Your task to perform on an android device: Open Chrome and go to settings Image 0: 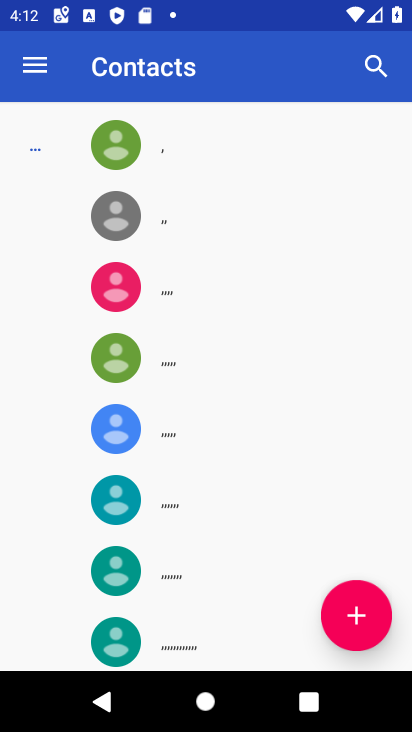
Step 0: press home button
Your task to perform on an android device: Open Chrome and go to settings Image 1: 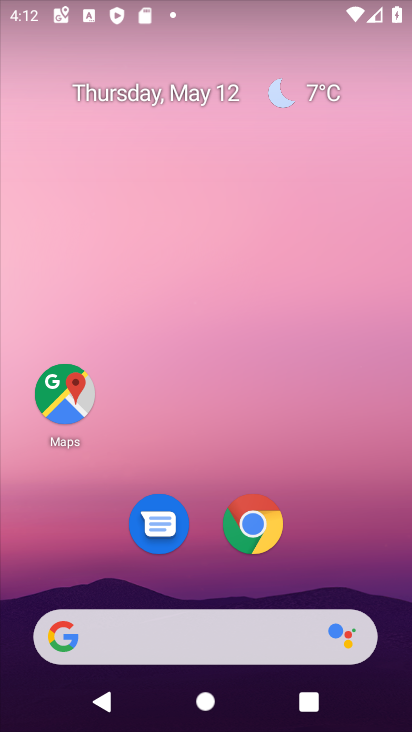
Step 1: click (266, 501)
Your task to perform on an android device: Open Chrome and go to settings Image 2: 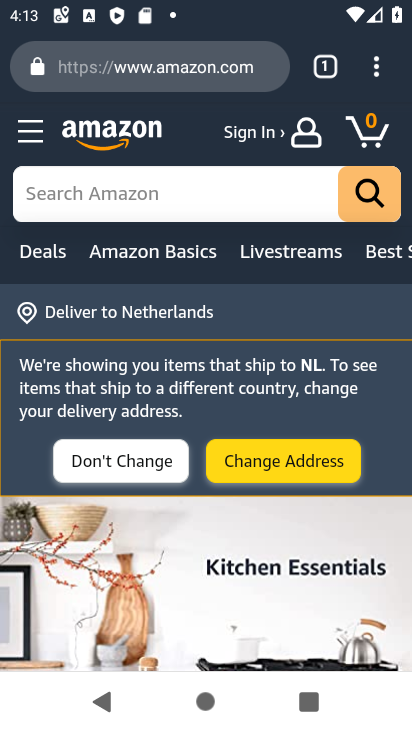
Step 2: click (374, 72)
Your task to perform on an android device: Open Chrome and go to settings Image 3: 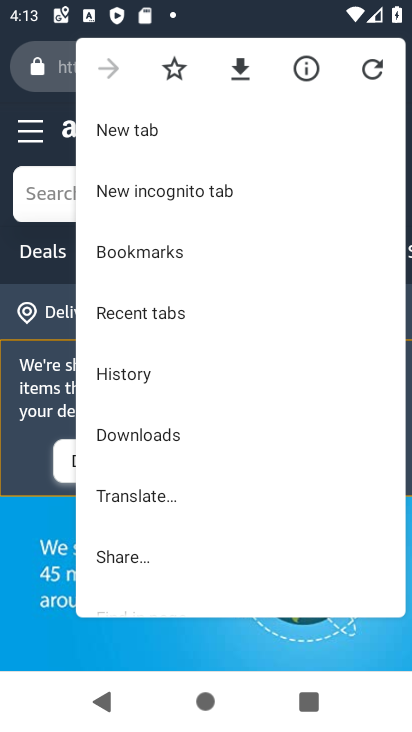
Step 3: drag from (273, 442) to (251, 138)
Your task to perform on an android device: Open Chrome and go to settings Image 4: 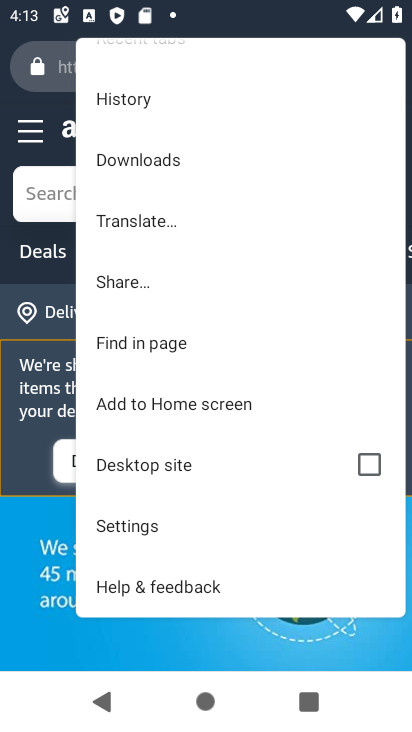
Step 4: click (206, 520)
Your task to perform on an android device: Open Chrome and go to settings Image 5: 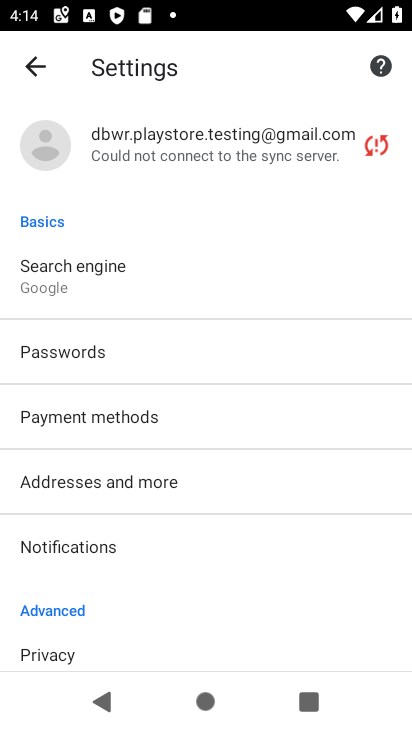
Step 5: task complete